Your task to perform on an android device: manage bookmarks in the chrome app Image 0: 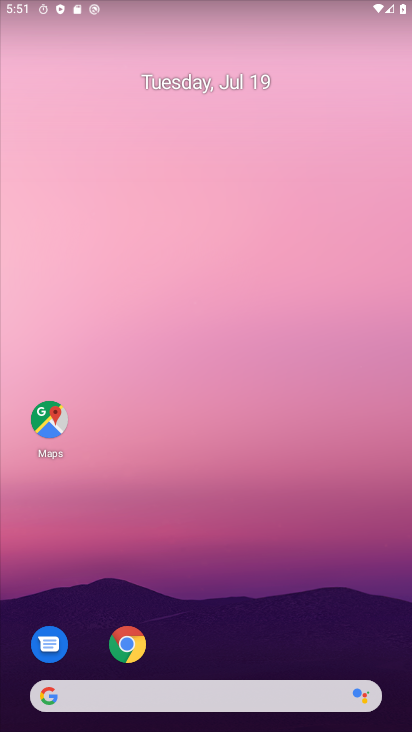
Step 0: click (137, 653)
Your task to perform on an android device: manage bookmarks in the chrome app Image 1: 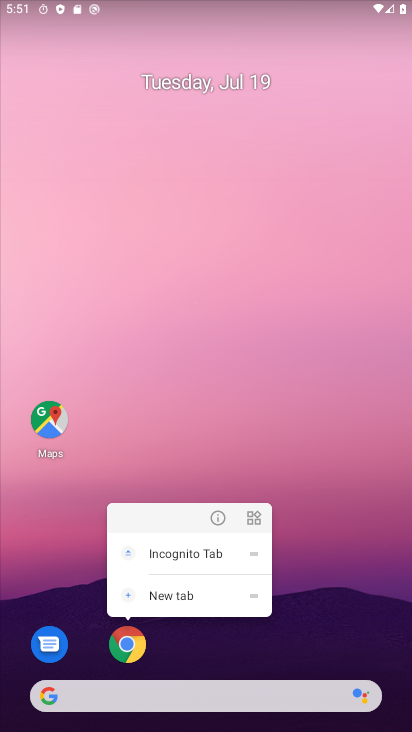
Step 1: click (128, 641)
Your task to perform on an android device: manage bookmarks in the chrome app Image 2: 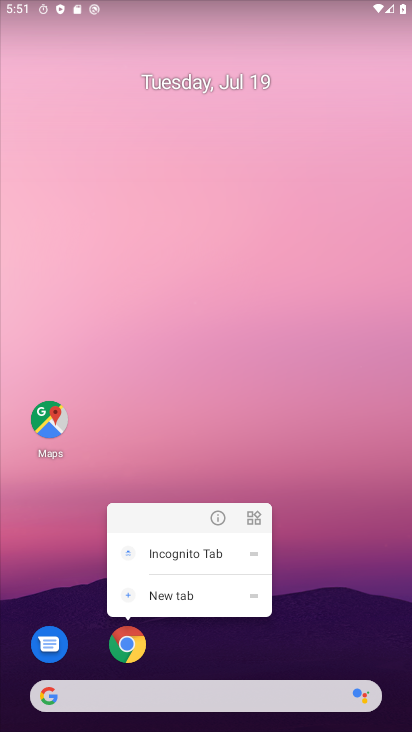
Step 2: click (128, 641)
Your task to perform on an android device: manage bookmarks in the chrome app Image 3: 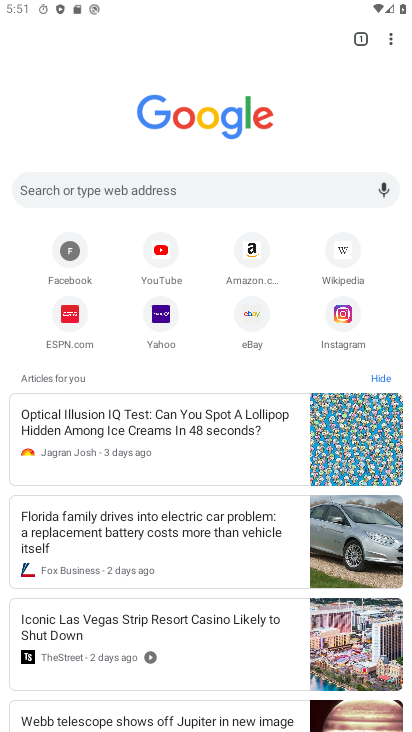
Step 3: click (392, 42)
Your task to perform on an android device: manage bookmarks in the chrome app Image 4: 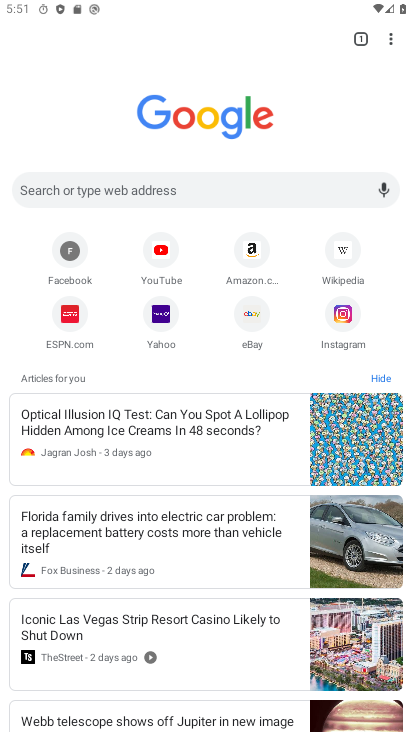
Step 4: click (392, 42)
Your task to perform on an android device: manage bookmarks in the chrome app Image 5: 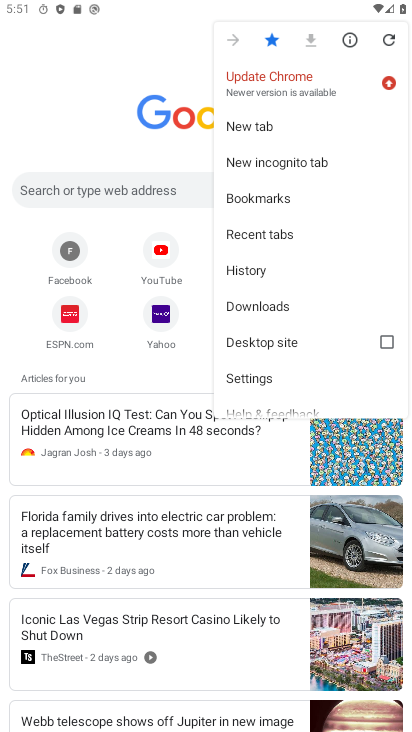
Step 5: click (259, 194)
Your task to perform on an android device: manage bookmarks in the chrome app Image 6: 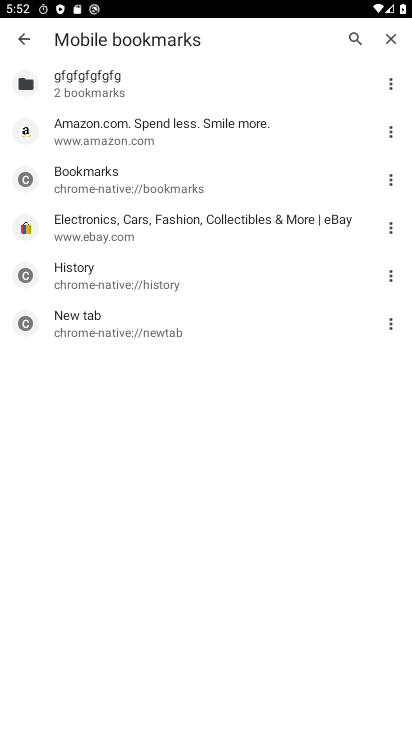
Step 6: click (392, 324)
Your task to perform on an android device: manage bookmarks in the chrome app Image 7: 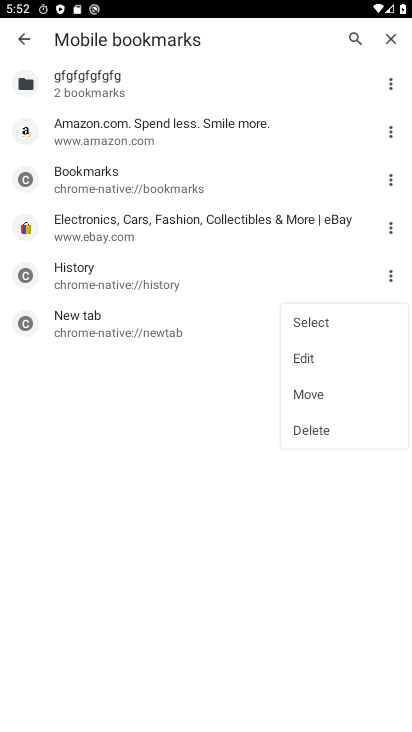
Step 7: click (299, 356)
Your task to perform on an android device: manage bookmarks in the chrome app Image 8: 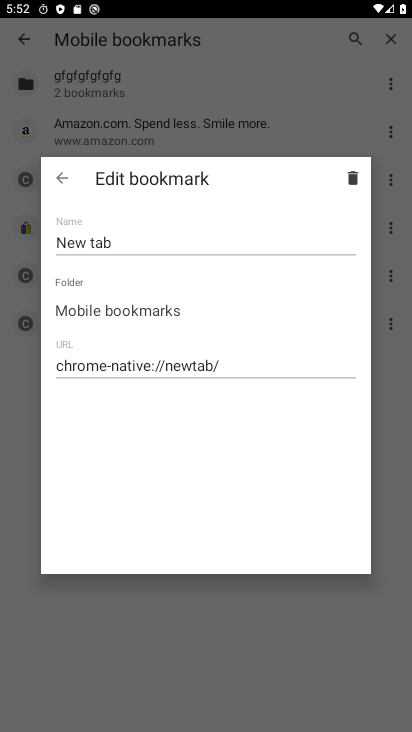
Step 8: click (279, 671)
Your task to perform on an android device: manage bookmarks in the chrome app Image 9: 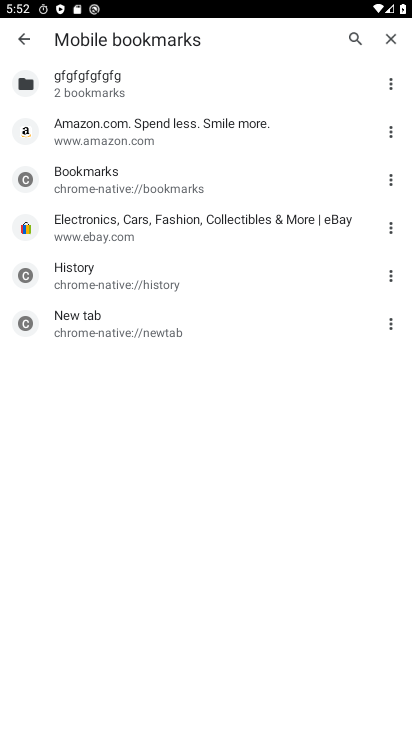
Step 9: task complete